Your task to perform on an android device: add a contact Image 0: 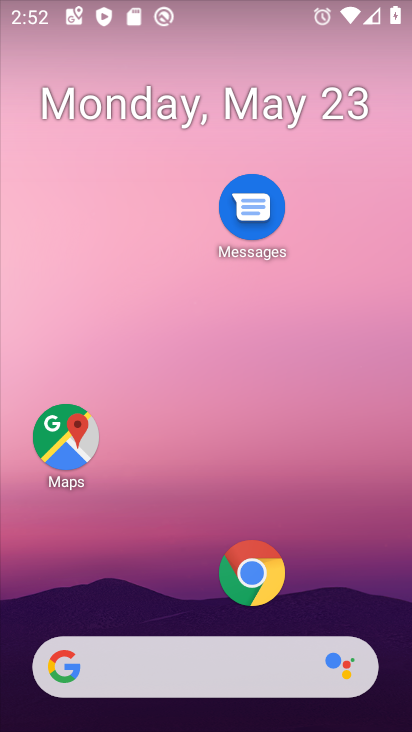
Step 0: drag from (337, 635) to (301, 20)
Your task to perform on an android device: add a contact Image 1: 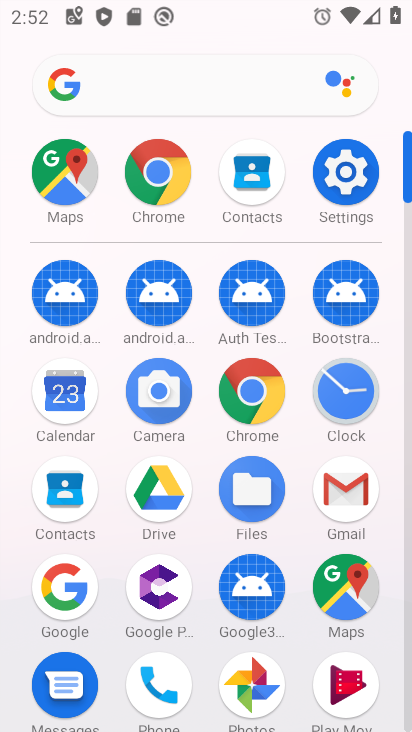
Step 1: click (79, 501)
Your task to perform on an android device: add a contact Image 2: 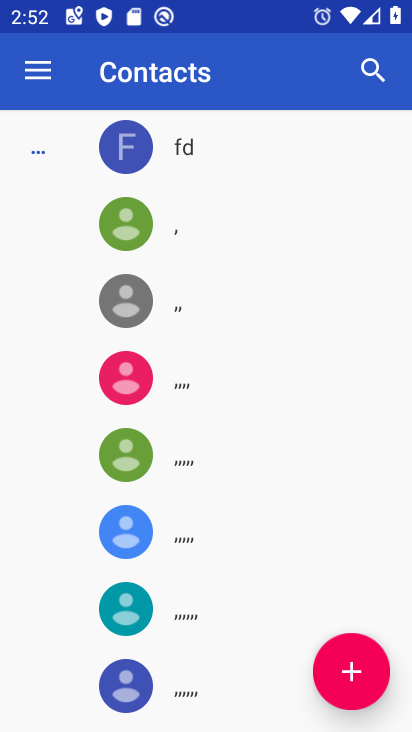
Step 2: click (344, 669)
Your task to perform on an android device: add a contact Image 3: 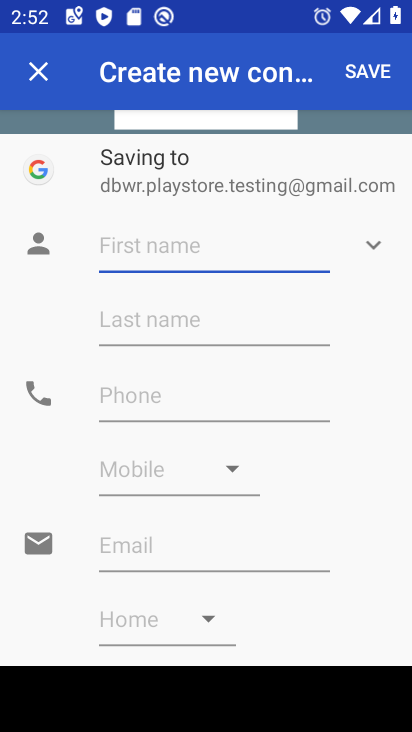
Step 3: type "djfgjdsh"
Your task to perform on an android device: add a contact Image 4: 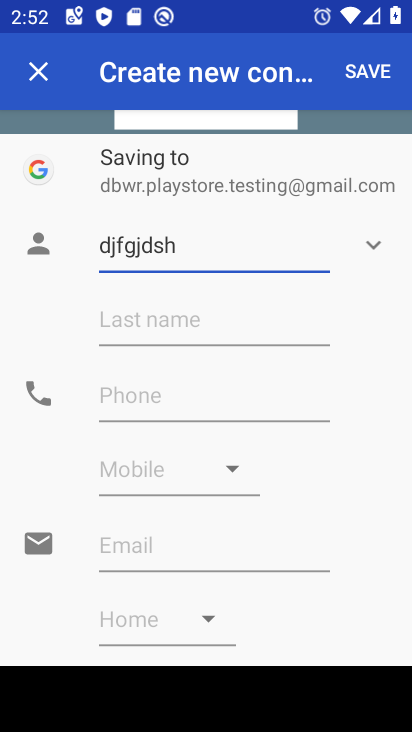
Step 4: click (209, 406)
Your task to perform on an android device: add a contact Image 5: 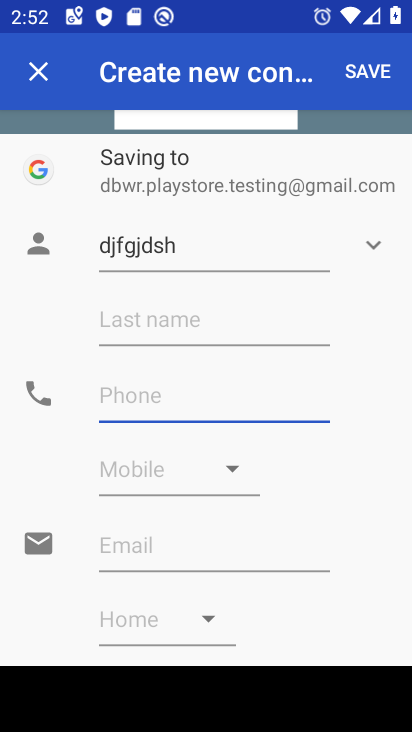
Step 5: type "09989076876"
Your task to perform on an android device: add a contact Image 6: 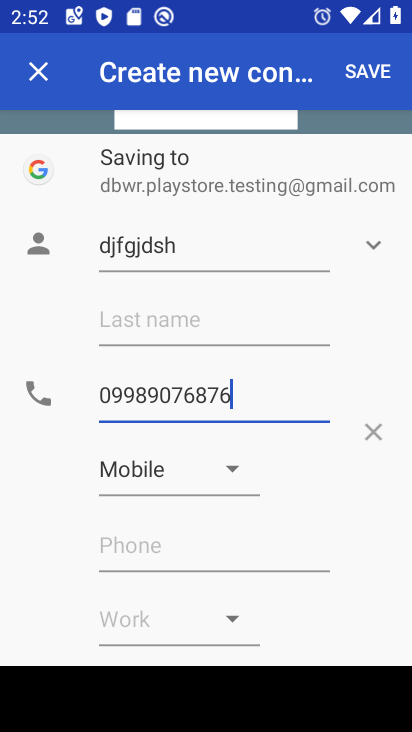
Step 6: click (380, 61)
Your task to perform on an android device: add a contact Image 7: 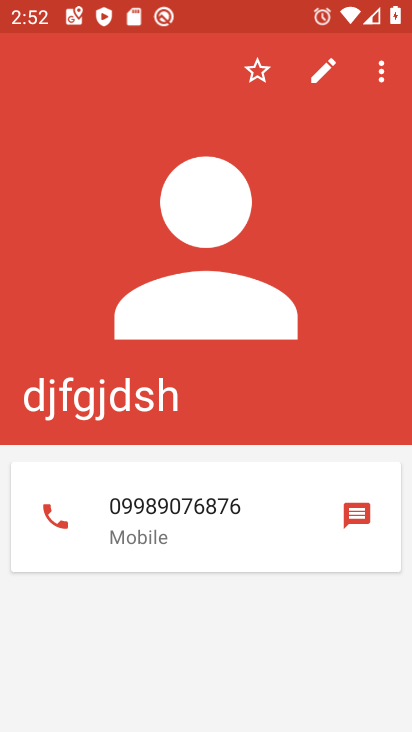
Step 7: task complete